Your task to perform on an android device: Go to Android settings Image 0: 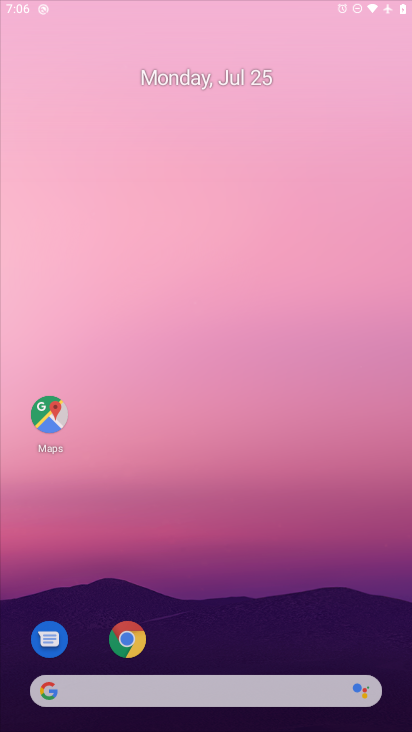
Step 0: press home button
Your task to perform on an android device: Go to Android settings Image 1: 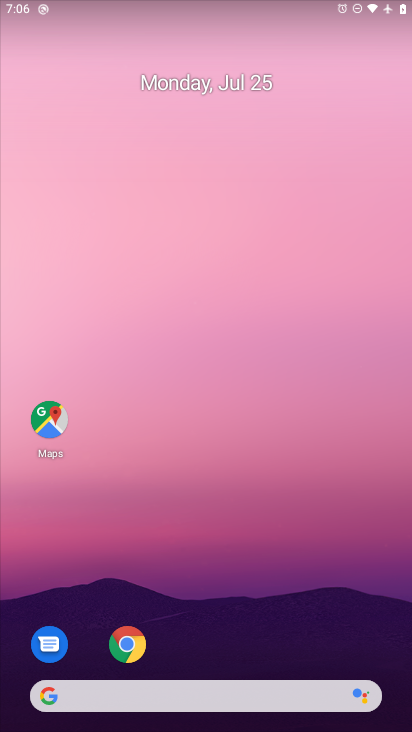
Step 1: drag from (228, 616) to (267, 131)
Your task to perform on an android device: Go to Android settings Image 2: 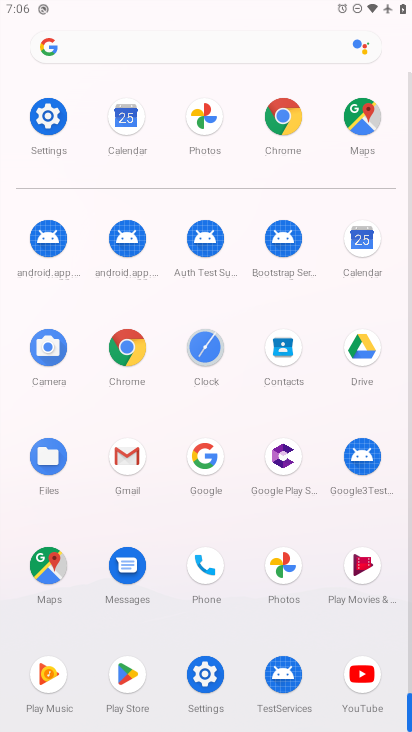
Step 2: click (48, 115)
Your task to perform on an android device: Go to Android settings Image 3: 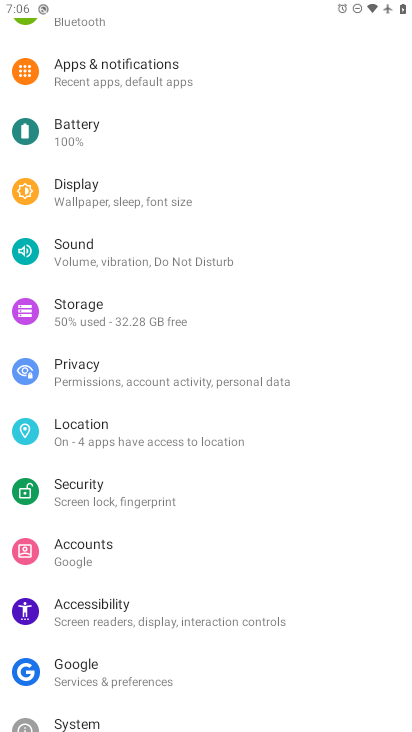
Step 3: task complete